Your task to perform on an android device: What's the weather going to be tomorrow? Image 0: 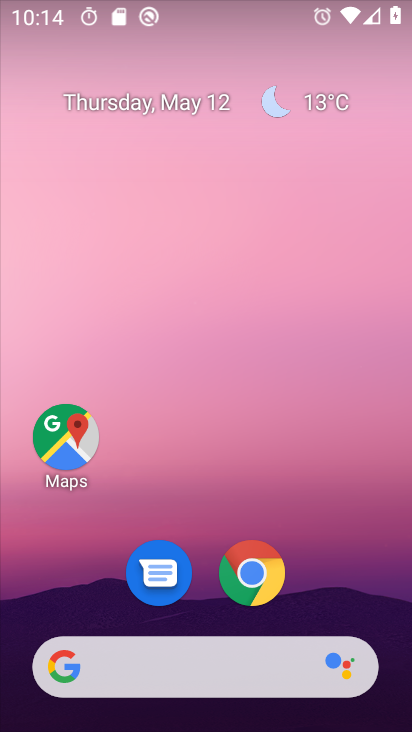
Step 0: drag from (124, 251) to (308, 274)
Your task to perform on an android device: What's the weather going to be tomorrow? Image 1: 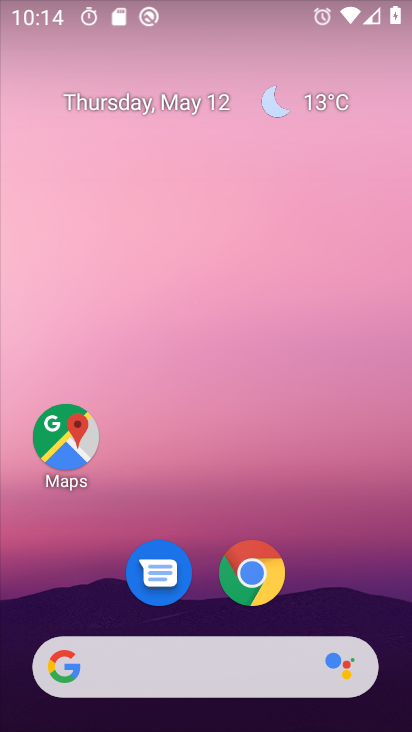
Step 1: click (70, 168)
Your task to perform on an android device: What's the weather going to be tomorrow? Image 2: 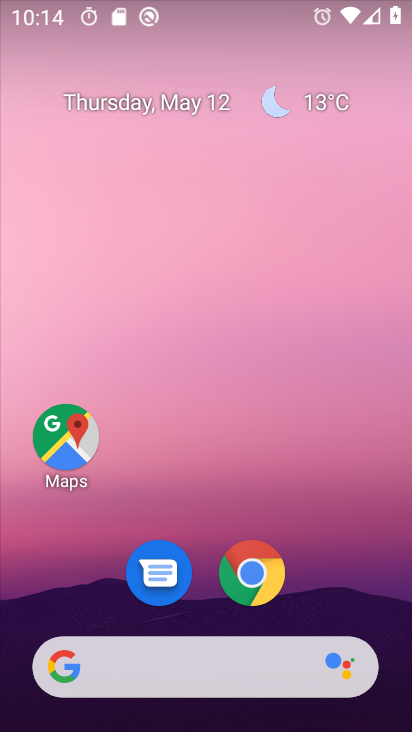
Step 2: click (313, 99)
Your task to perform on an android device: What's the weather going to be tomorrow? Image 3: 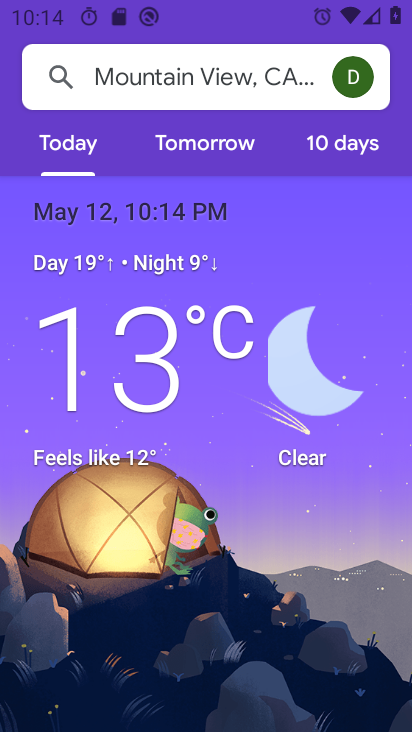
Step 3: click (199, 140)
Your task to perform on an android device: What's the weather going to be tomorrow? Image 4: 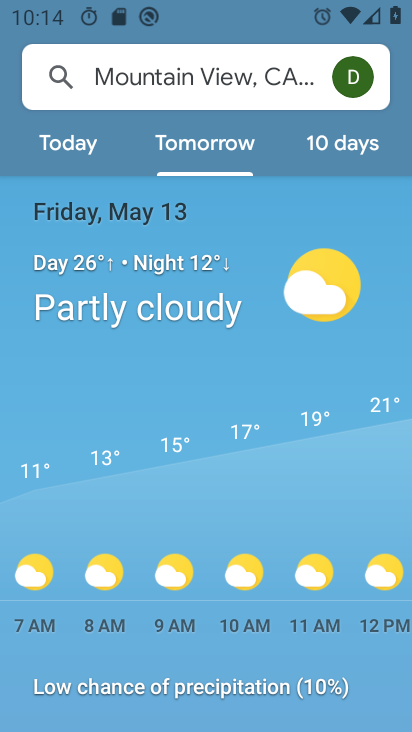
Step 4: task complete